Your task to perform on an android device: uninstall "Google Photos" Image 0: 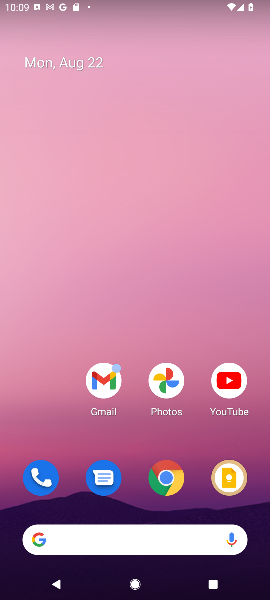
Step 0: click (169, 381)
Your task to perform on an android device: uninstall "Google Photos" Image 1: 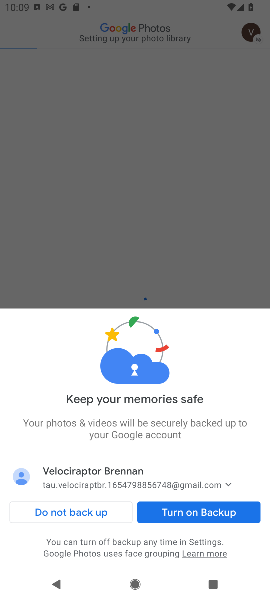
Step 1: task complete